Your task to perform on an android device: check data usage Image 0: 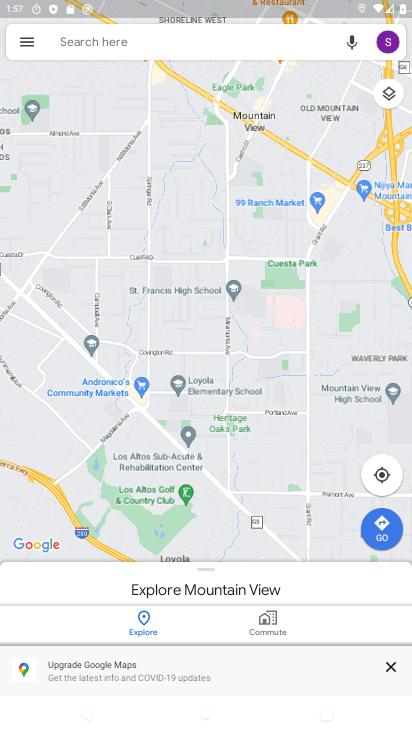
Step 0: drag from (212, 548) to (244, 169)
Your task to perform on an android device: check data usage Image 1: 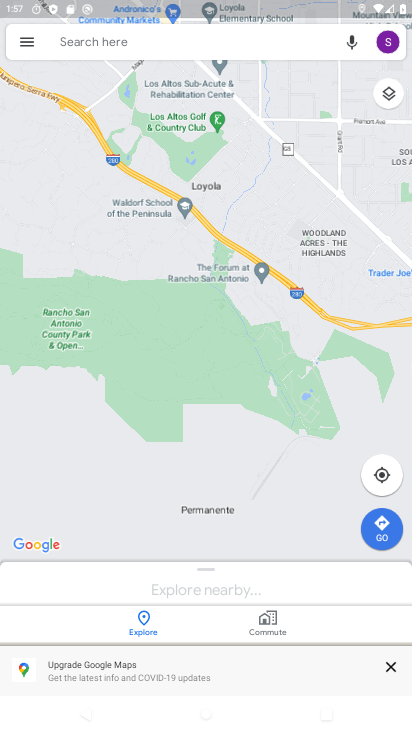
Step 1: press home button
Your task to perform on an android device: check data usage Image 2: 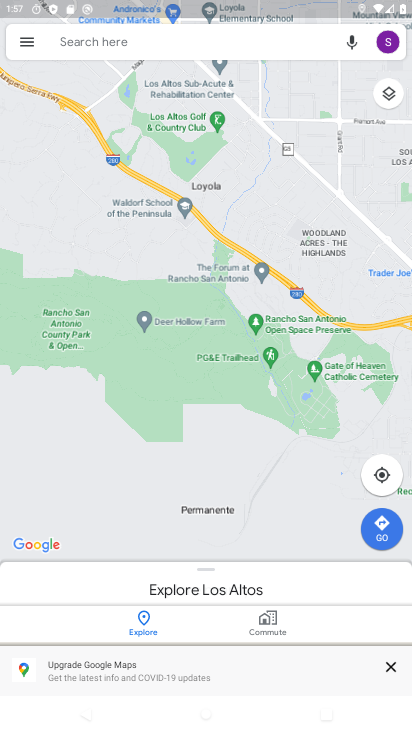
Step 2: drag from (231, 567) to (263, 144)
Your task to perform on an android device: check data usage Image 3: 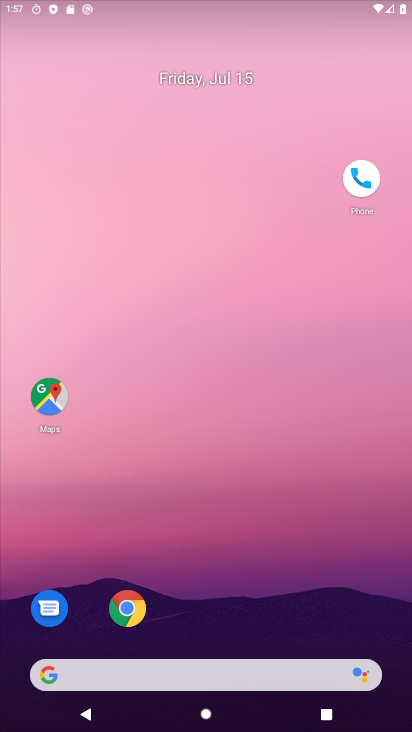
Step 3: drag from (206, 624) to (287, 58)
Your task to perform on an android device: check data usage Image 4: 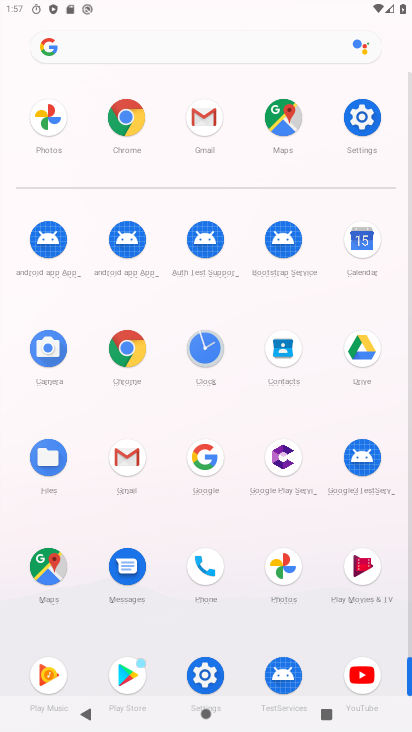
Step 4: click (367, 119)
Your task to perform on an android device: check data usage Image 5: 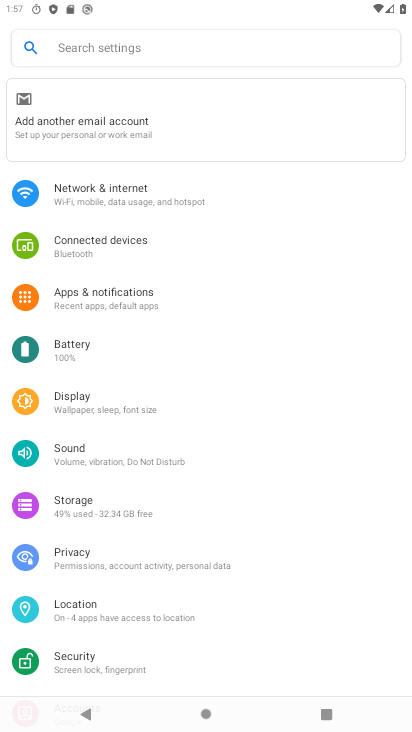
Step 5: click (120, 196)
Your task to perform on an android device: check data usage Image 6: 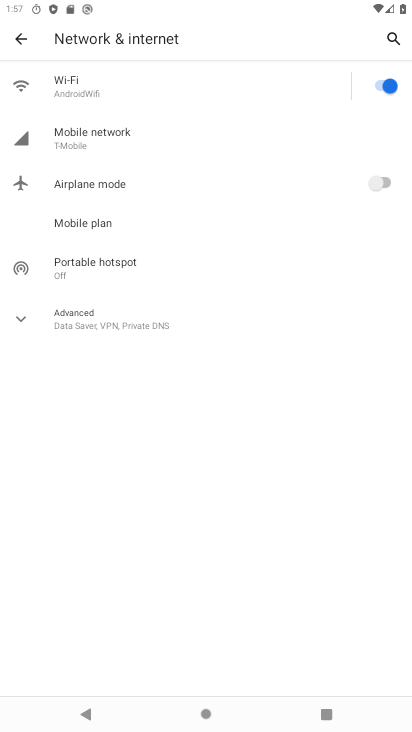
Step 6: click (129, 140)
Your task to perform on an android device: check data usage Image 7: 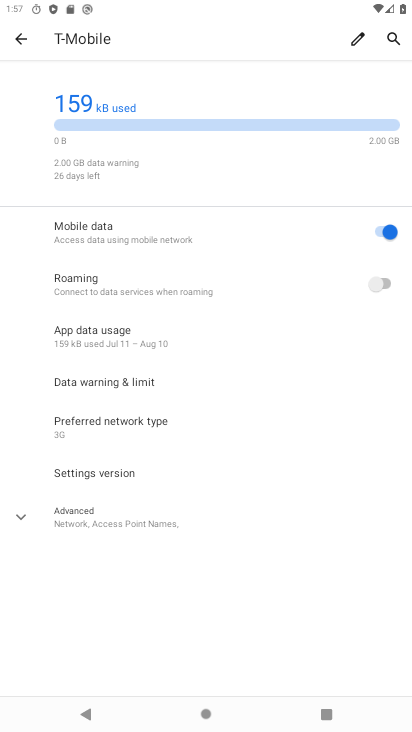
Step 7: task complete